Your task to perform on an android device: open app "Paramount+ | Peak Streaming" (install if not already installed) and enter user name: "fostered@yahoo.com" and password: "strong" Image 0: 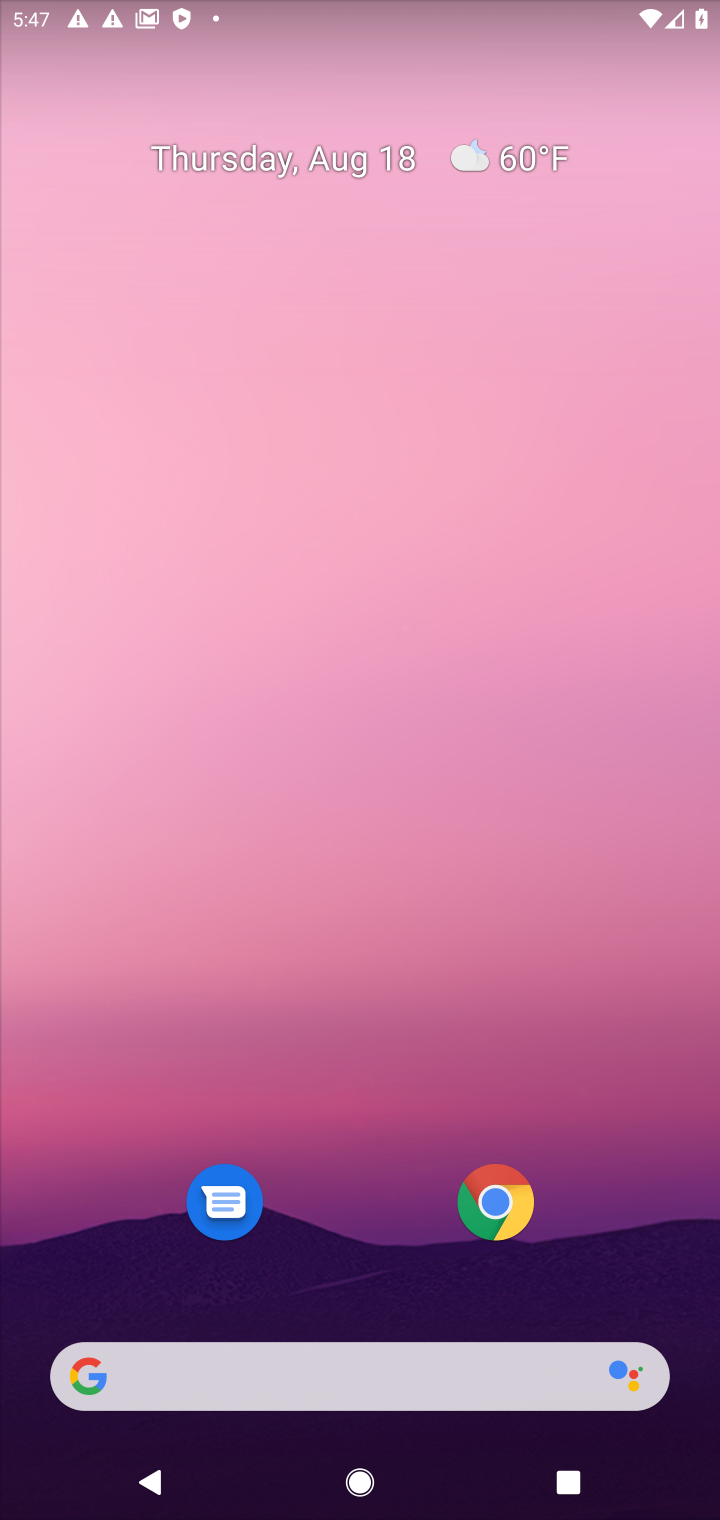
Step 0: drag from (346, 1337) to (477, 14)
Your task to perform on an android device: open app "Paramount+ | Peak Streaming" (install if not already installed) and enter user name: "fostered@yahoo.com" and password: "strong" Image 1: 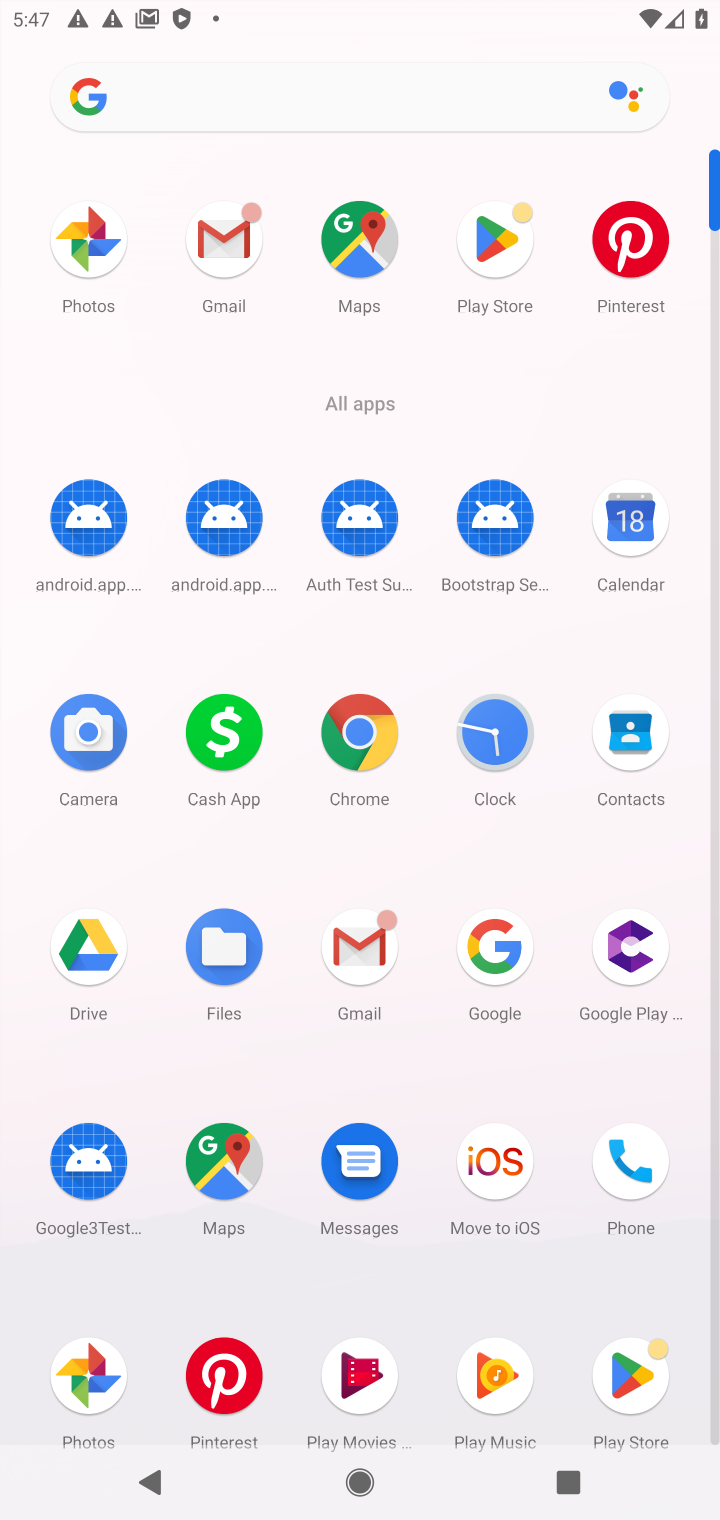
Step 1: click (486, 244)
Your task to perform on an android device: open app "Paramount+ | Peak Streaming" (install if not already installed) and enter user name: "fostered@yahoo.com" and password: "strong" Image 2: 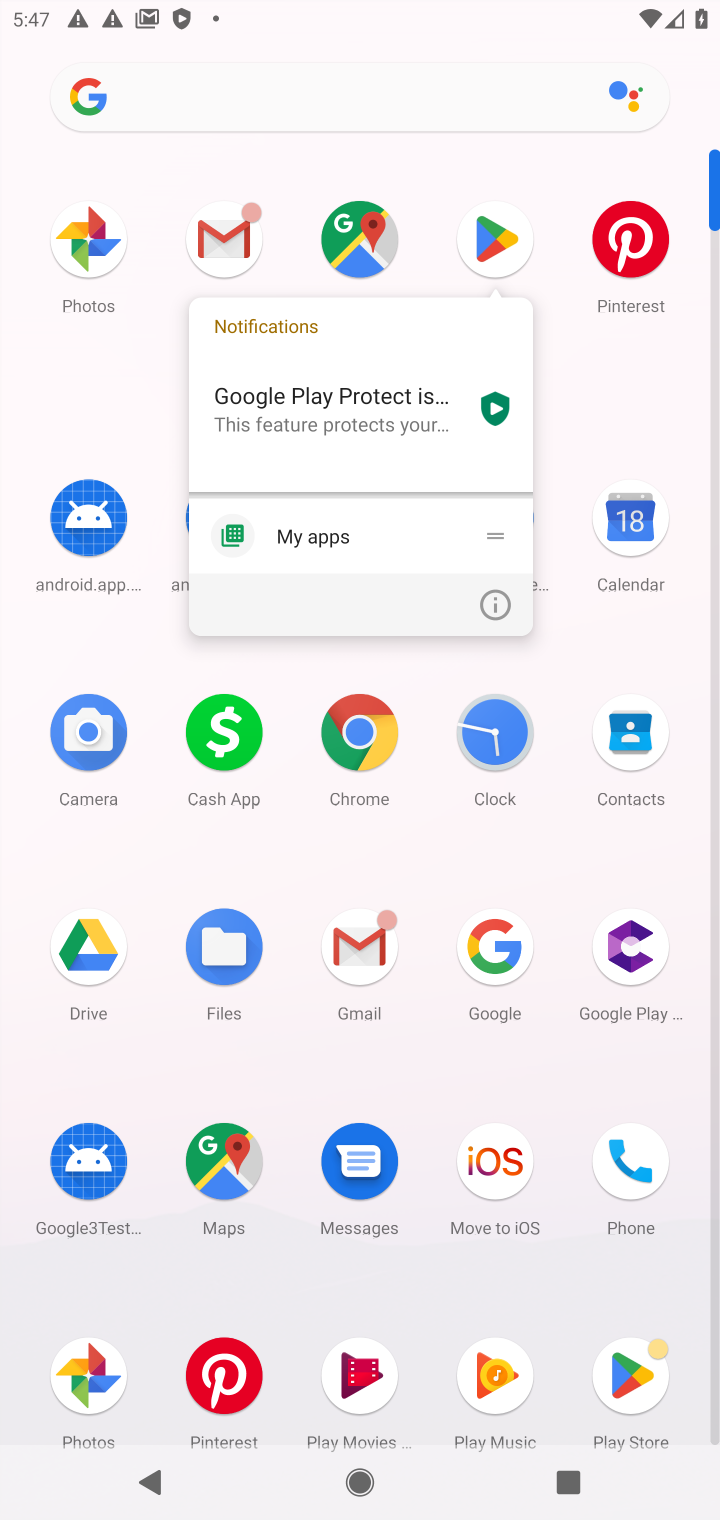
Step 2: click (488, 235)
Your task to perform on an android device: open app "Paramount+ | Peak Streaming" (install if not already installed) and enter user name: "fostered@yahoo.com" and password: "strong" Image 3: 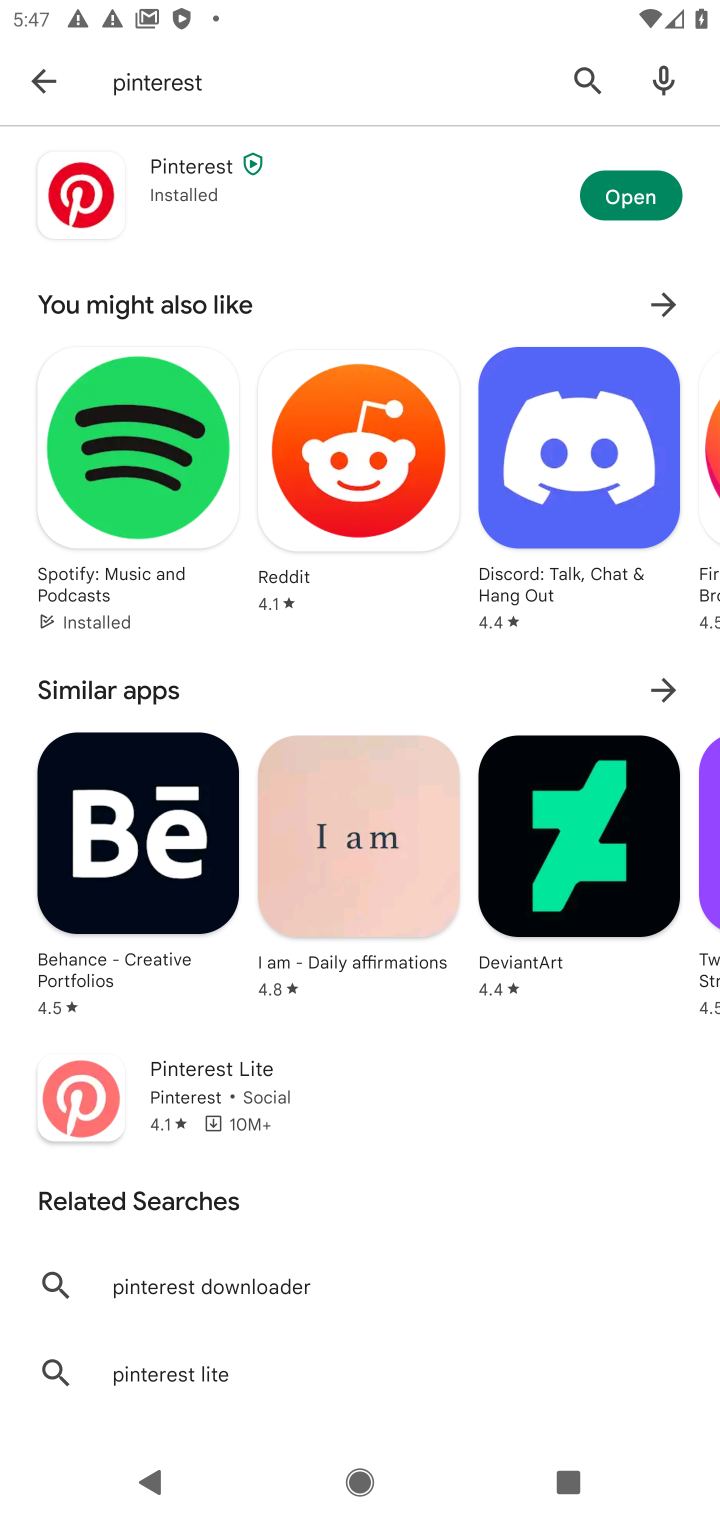
Step 3: click (561, 89)
Your task to perform on an android device: open app "Paramount+ | Peak Streaming" (install if not already installed) and enter user name: "fostered@yahoo.com" and password: "strong" Image 4: 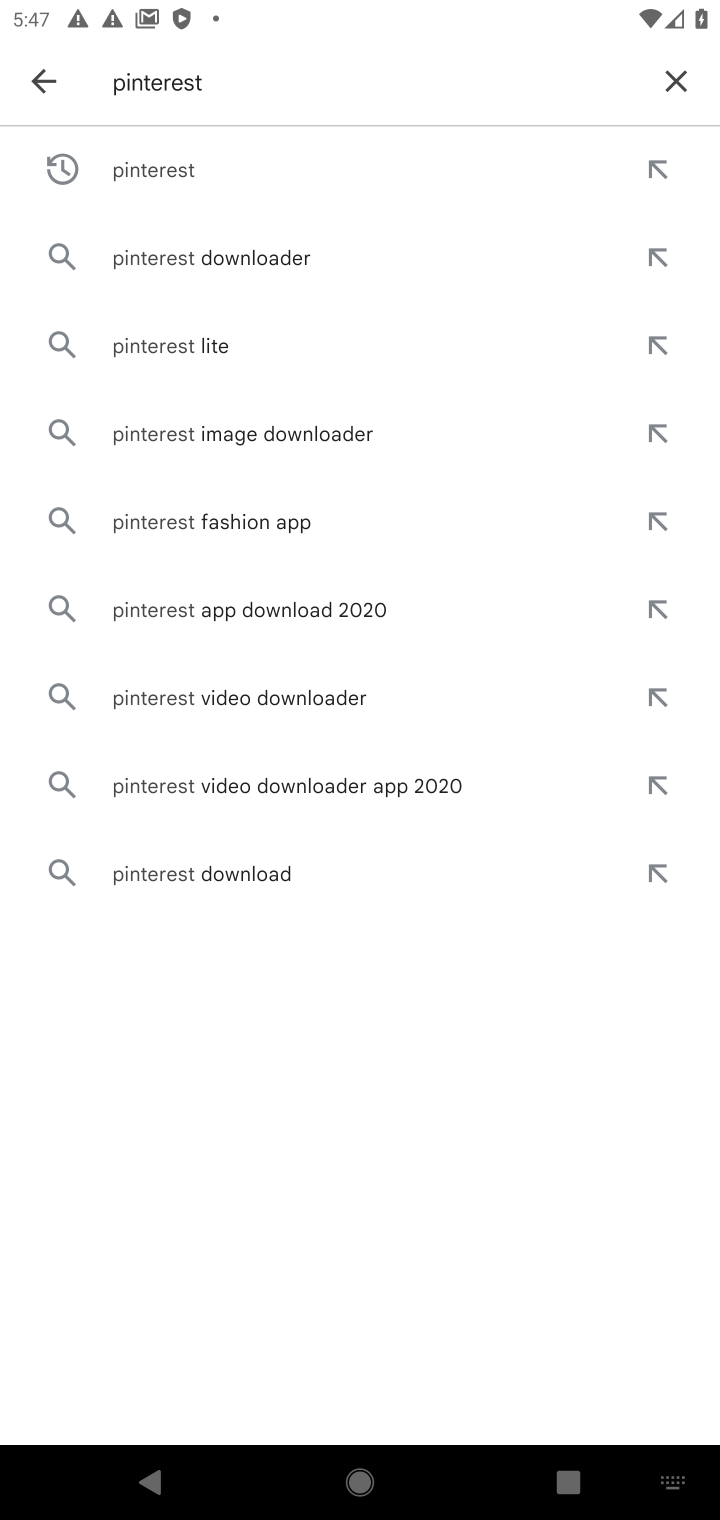
Step 4: click (676, 81)
Your task to perform on an android device: open app "Paramount+ | Peak Streaming" (install if not already installed) and enter user name: "fostered@yahoo.com" and password: "strong" Image 5: 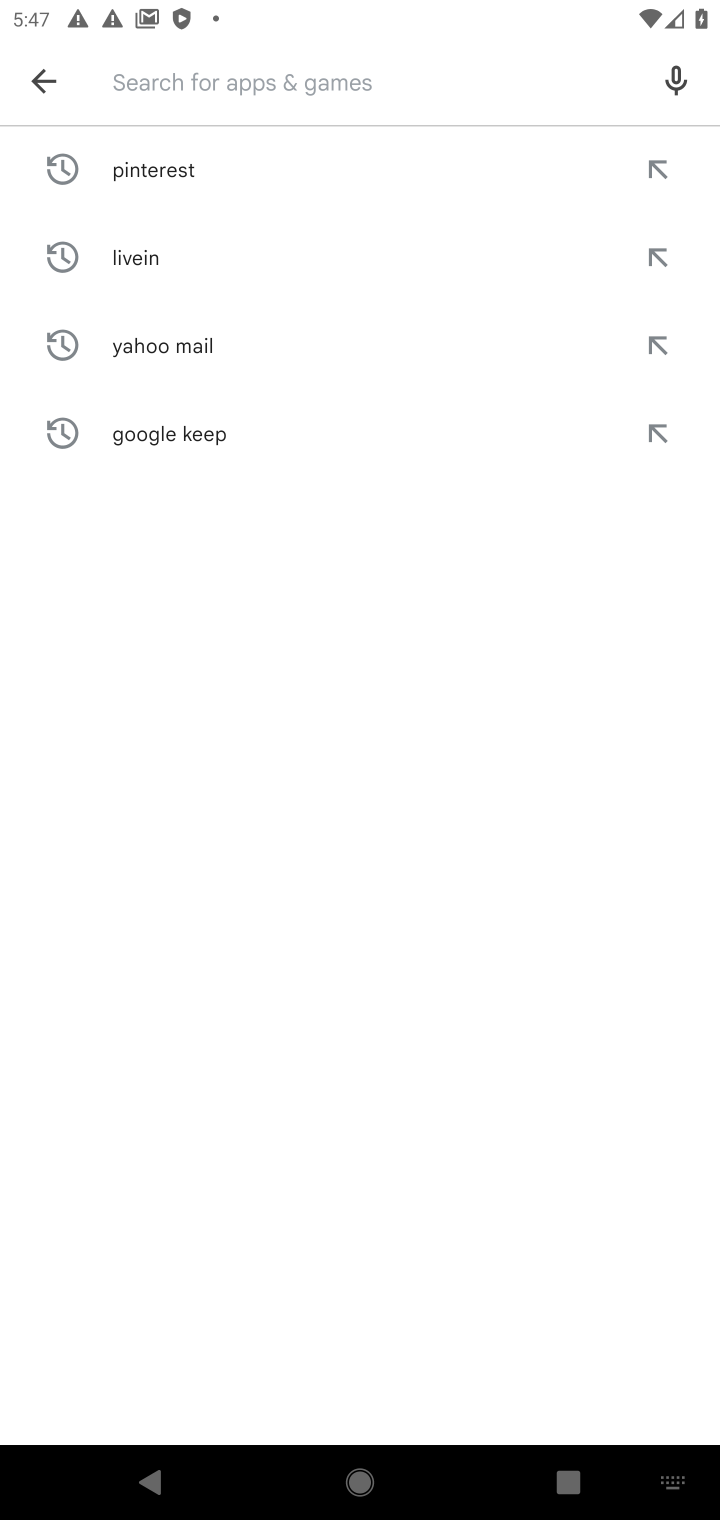
Step 5: type "paramount+"
Your task to perform on an android device: open app "Paramount+ | Peak Streaming" (install if not already installed) and enter user name: "fostered@yahoo.com" and password: "strong" Image 6: 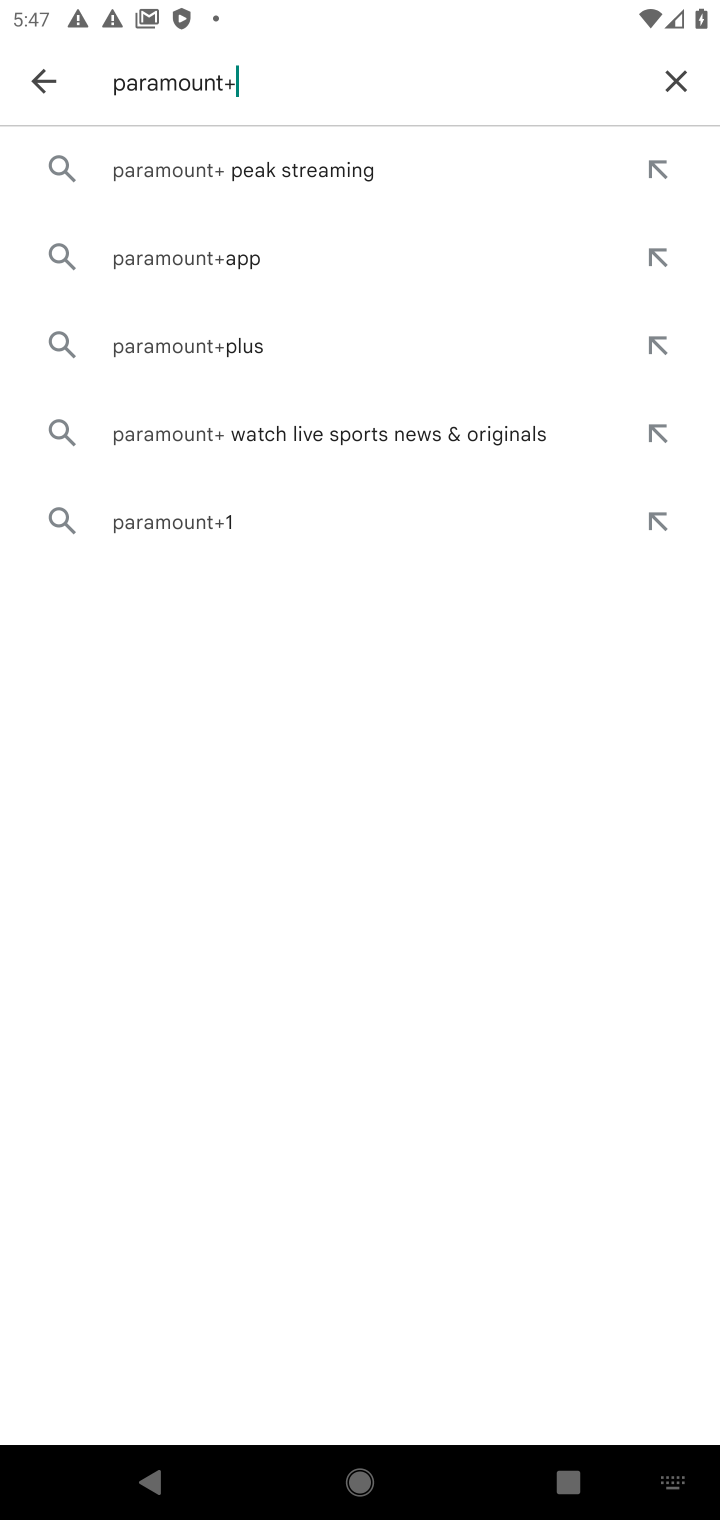
Step 6: click (206, 163)
Your task to perform on an android device: open app "Paramount+ | Peak Streaming" (install if not already installed) and enter user name: "fostered@yahoo.com" and password: "strong" Image 7: 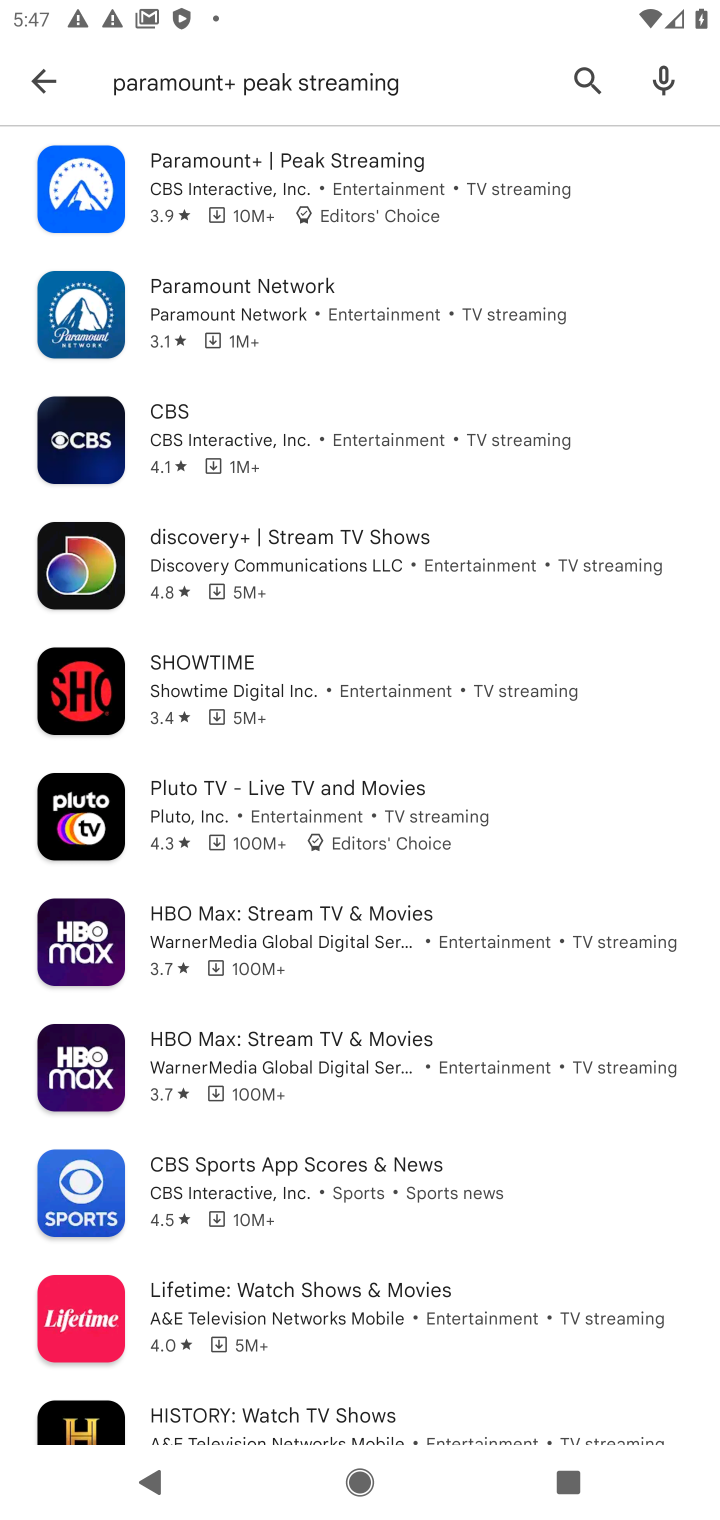
Step 7: click (208, 187)
Your task to perform on an android device: open app "Paramount+ | Peak Streaming" (install if not already installed) and enter user name: "fostered@yahoo.com" and password: "strong" Image 8: 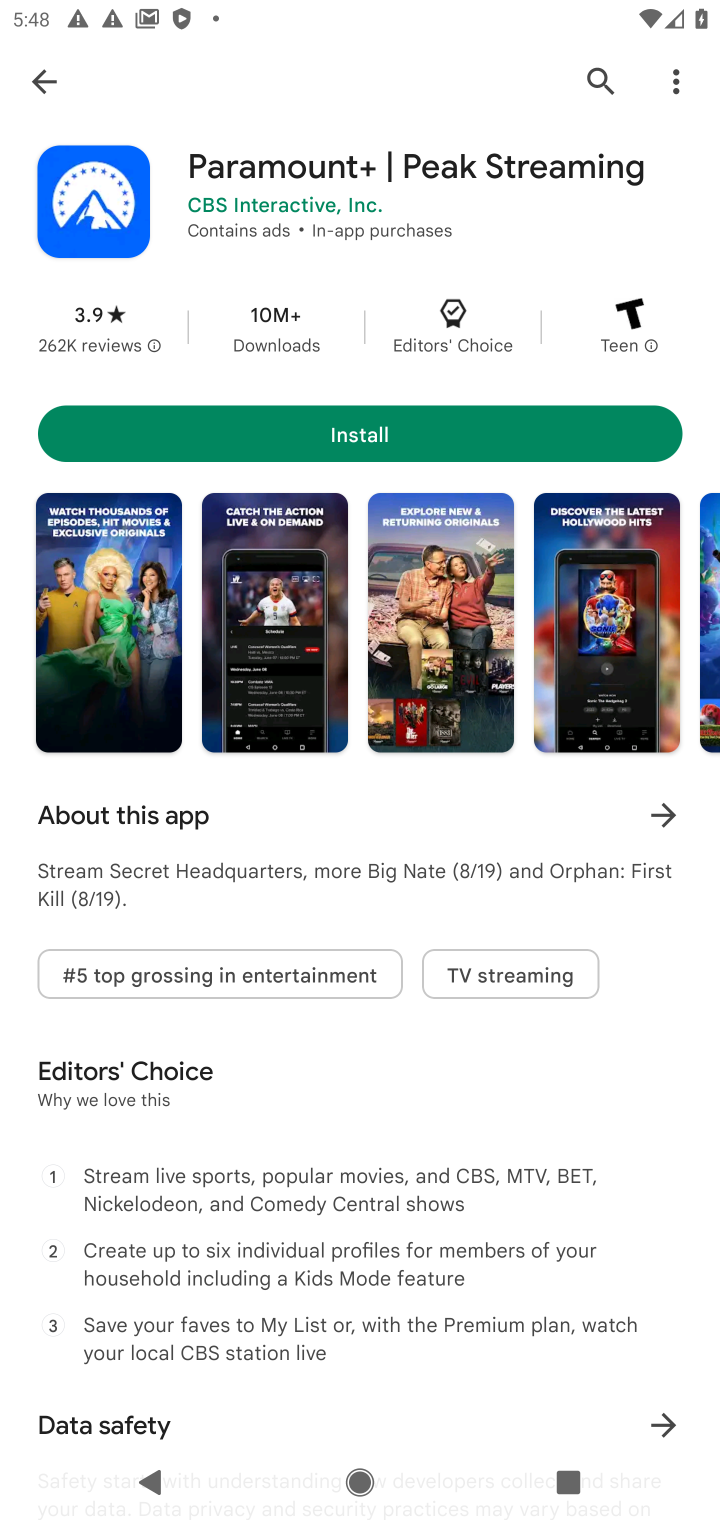
Step 8: click (270, 424)
Your task to perform on an android device: open app "Paramount+ | Peak Streaming" (install if not already installed) and enter user name: "fostered@yahoo.com" and password: "strong" Image 9: 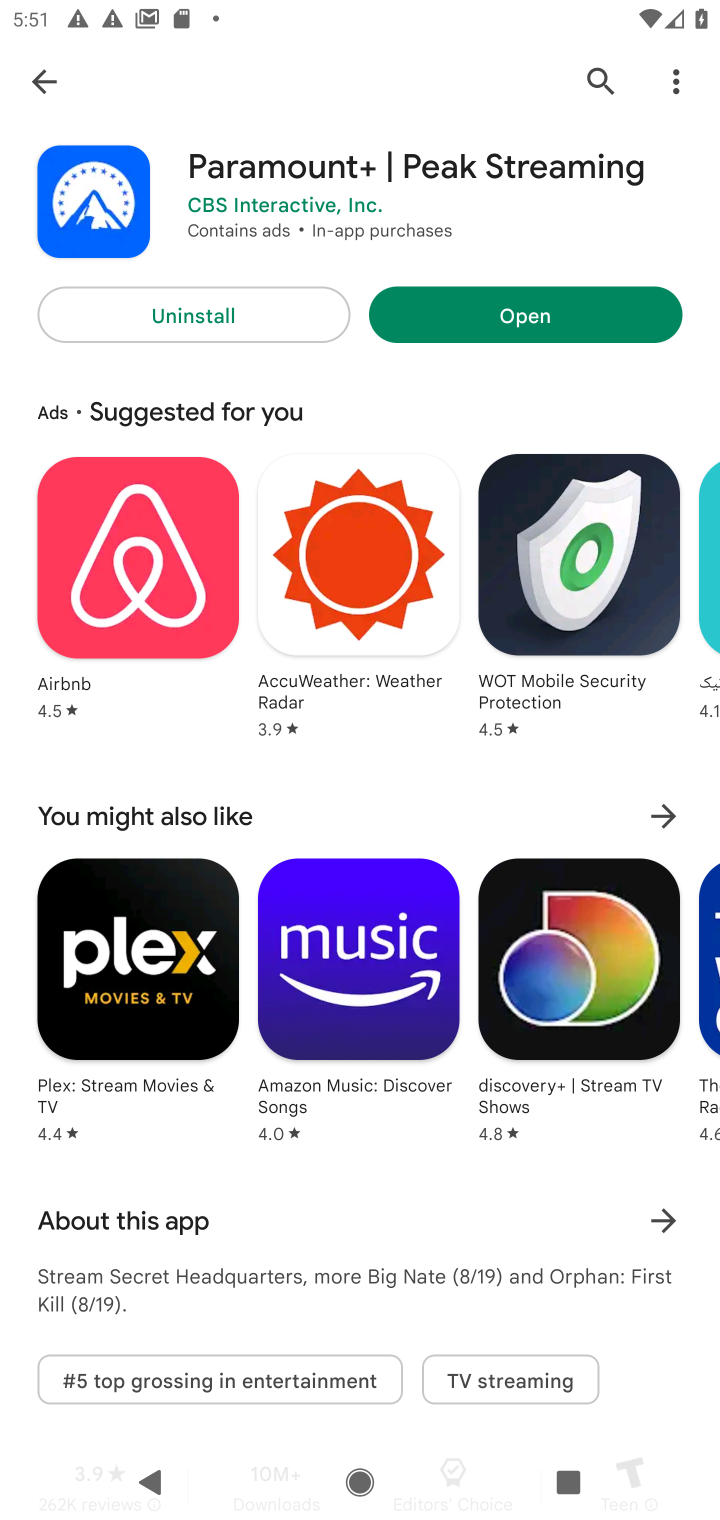
Step 9: click (502, 326)
Your task to perform on an android device: open app "Paramount+ | Peak Streaming" (install if not already installed) and enter user name: "fostered@yahoo.com" and password: "strong" Image 10: 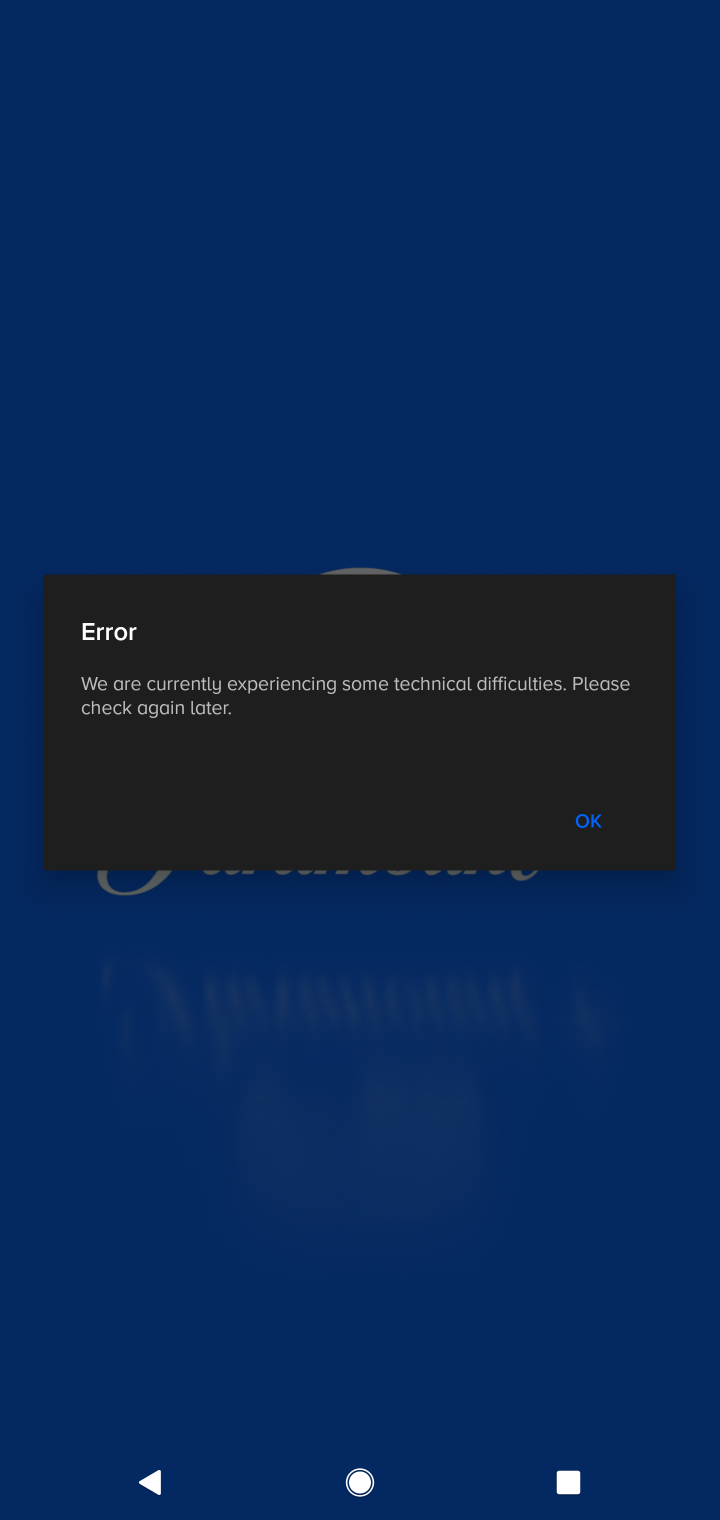
Step 10: click (586, 821)
Your task to perform on an android device: open app "Paramount+ | Peak Streaming" (install if not already installed) and enter user name: "fostered@yahoo.com" and password: "strong" Image 11: 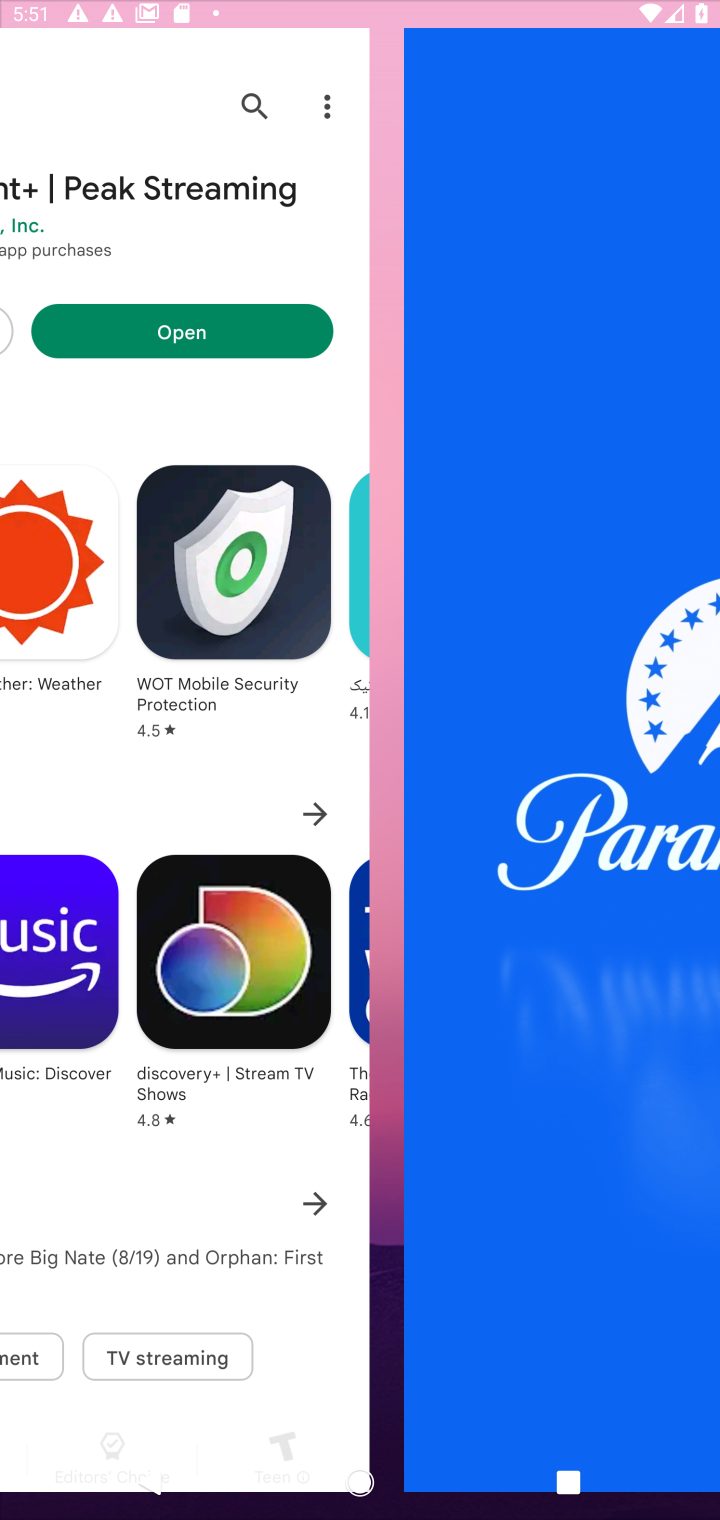
Step 11: task complete